Your task to perform on an android device: Check the weather Image 0: 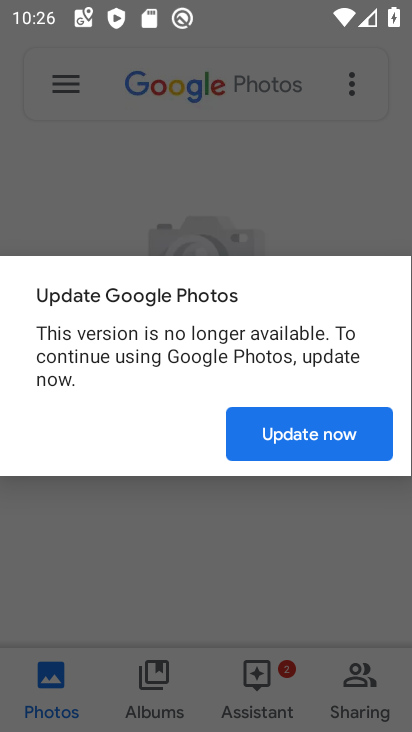
Step 0: press home button
Your task to perform on an android device: Check the weather Image 1: 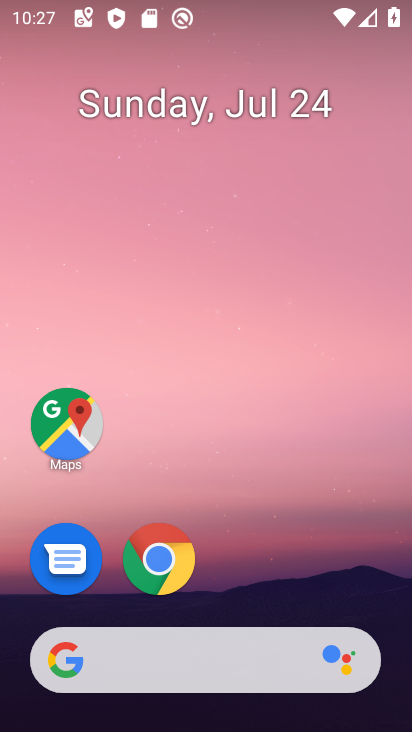
Step 1: click (161, 657)
Your task to perform on an android device: Check the weather Image 2: 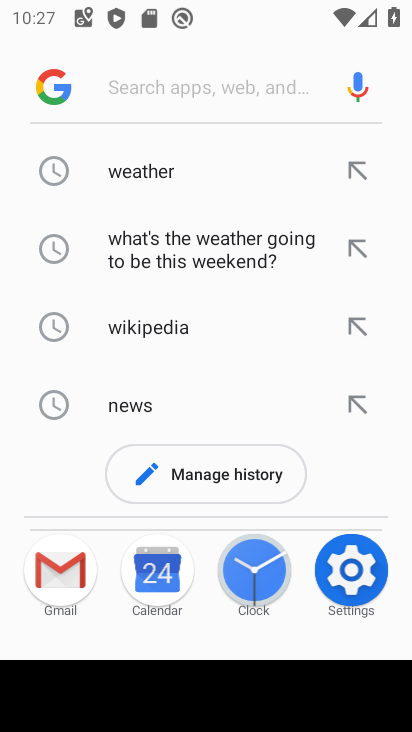
Step 2: click (160, 182)
Your task to perform on an android device: Check the weather Image 3: 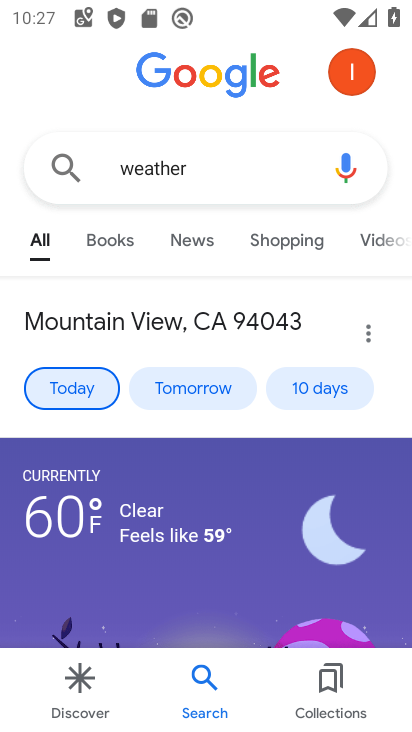
Step 3: task complete